Your task to perform on an android device: Open calendar and show me the fourth week of next month Image 0: 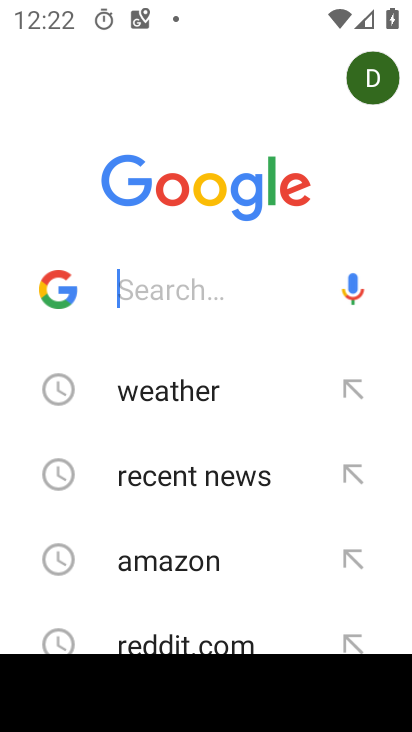
Step 0: press home button
Your task to perform on an android device: Open calendar and show me the fourth week of next month Image 1: 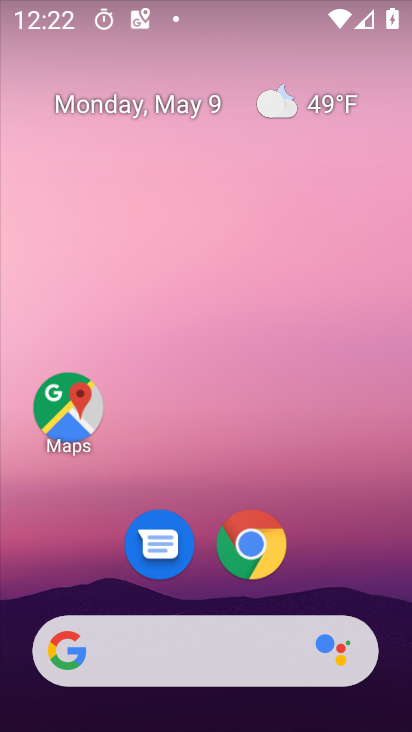
Step 1: drag from (357, 628) to (333, 3)
Your task to perform on an android device: Open calendar and show me the fourth week of next month Image 2: 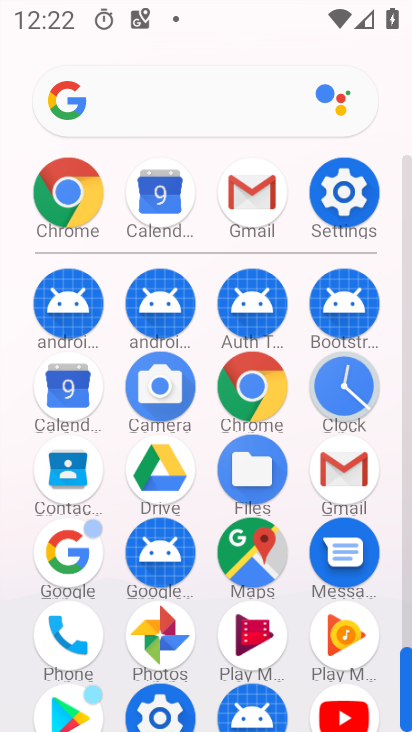
Step 2: click (67, 406)
Your task to perform on an android device: Open calendar and show me the fourth week of next month Image 3: 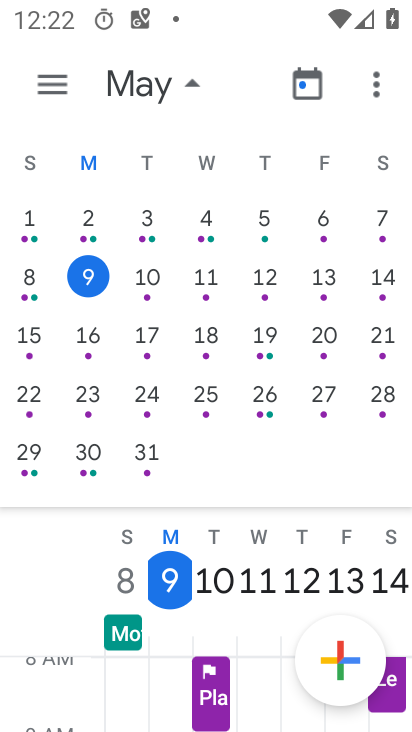
Step 3: click (193, 83)
Your task to perform on an android device: Open calendar and show me the fourth week of next month Image 4: 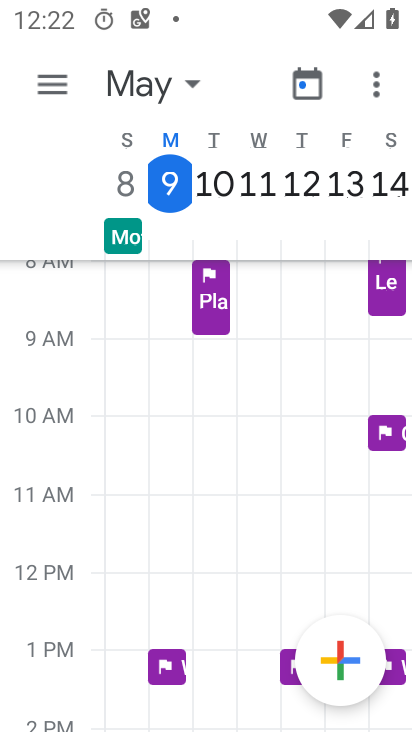
Step 4: click (187, 82)
Your task to perform on an android device: Open calendar and show me the fourth week of next month Image 5: 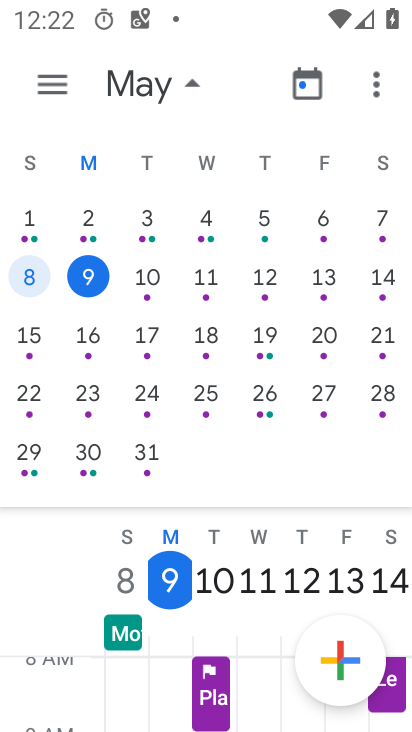
Step 5: click (258, 389)
Your task to perform on an android device: Open calendar and show me the fourth week of next month Image 6: 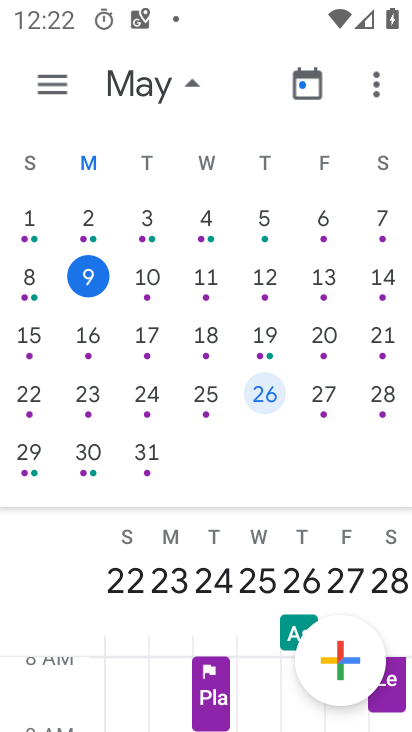
Step 6: task complete